Your task to perform on an android device: check google app version Image 0: 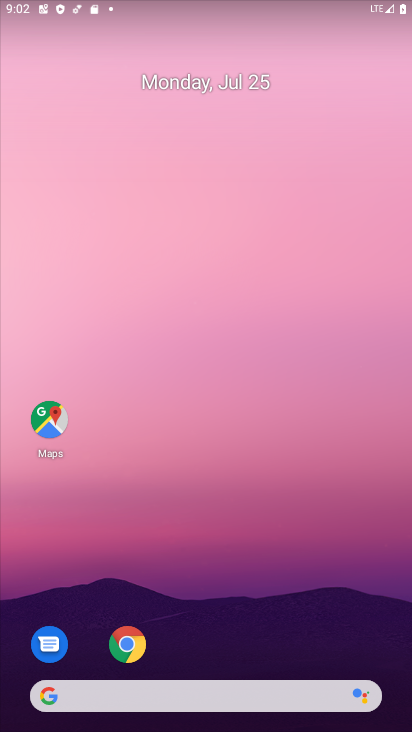
Step 0: drag from (281, 612) to (278, 160)
Your task to perform on an android device: check google app version Image 1: 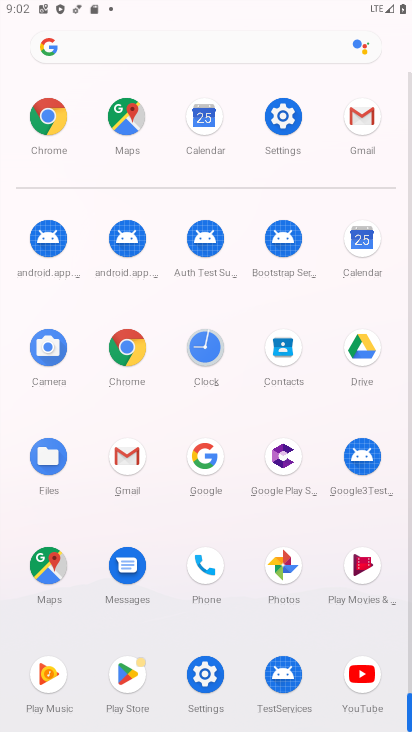
Step 1: click (221, 467)
Your task to perform on an android device: check google app version Image 2: 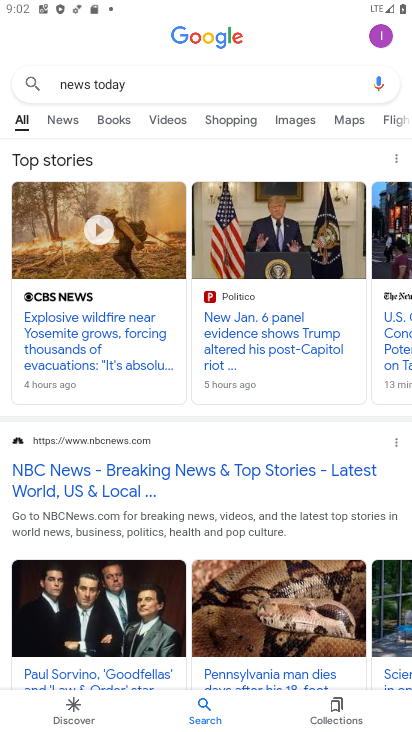
Step 2: click (386, 32)
Your task to perform on an android device: check google app version Image 3: 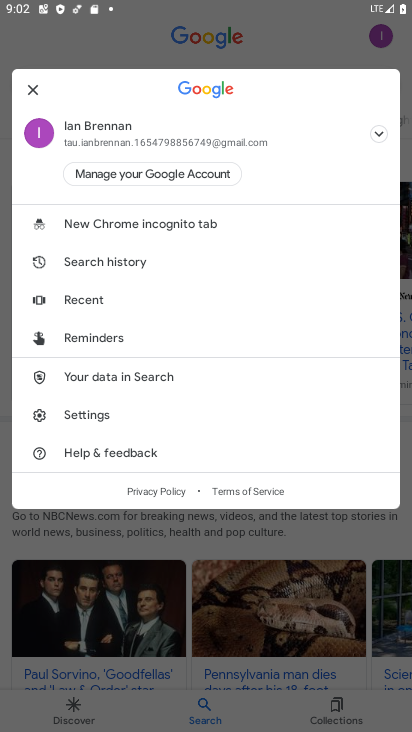
Step 3: click (99, 408)
Your task to perform on an android device: check google app version Image 4: 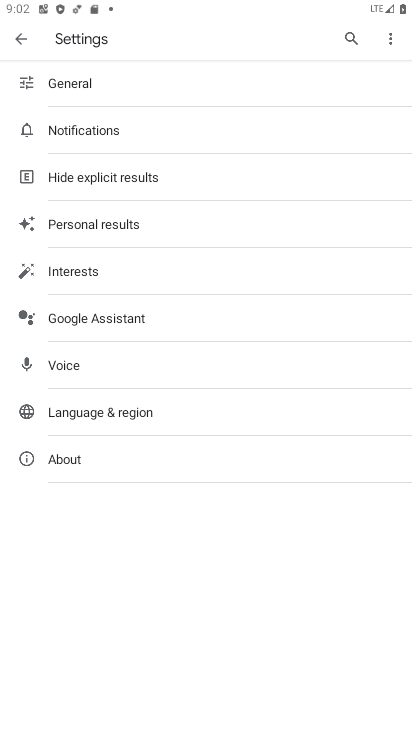
Step 4: click (94, 456)
Your task to perform on an android device: check google app version Image 5: 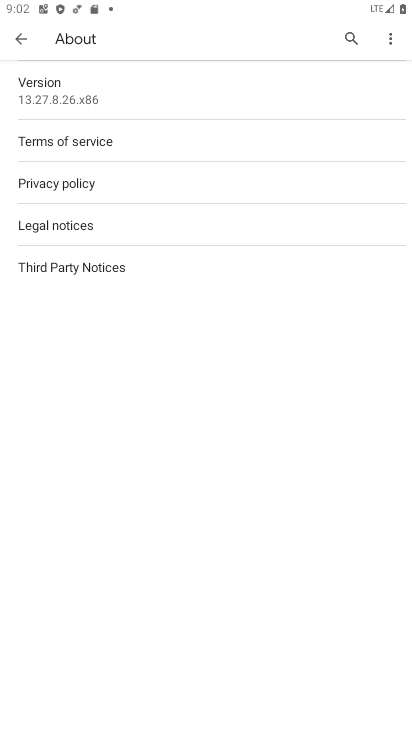
Step 5: click (92, 95)
Your task to perform on an android device: check google app version Image 6: 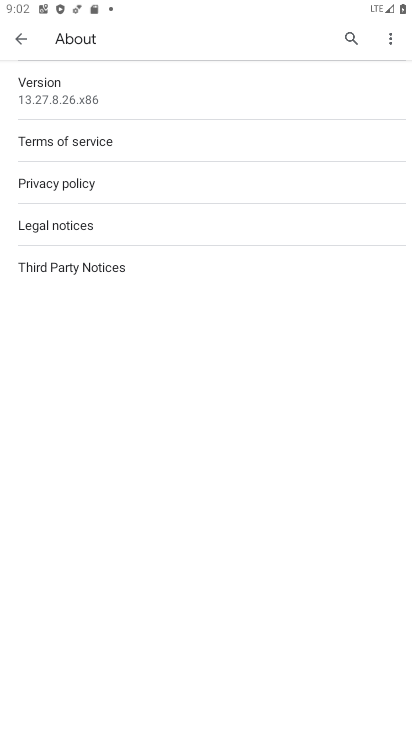
Step 6: task complete